Your task to perform on an android device: all mails in gmail Image 0: 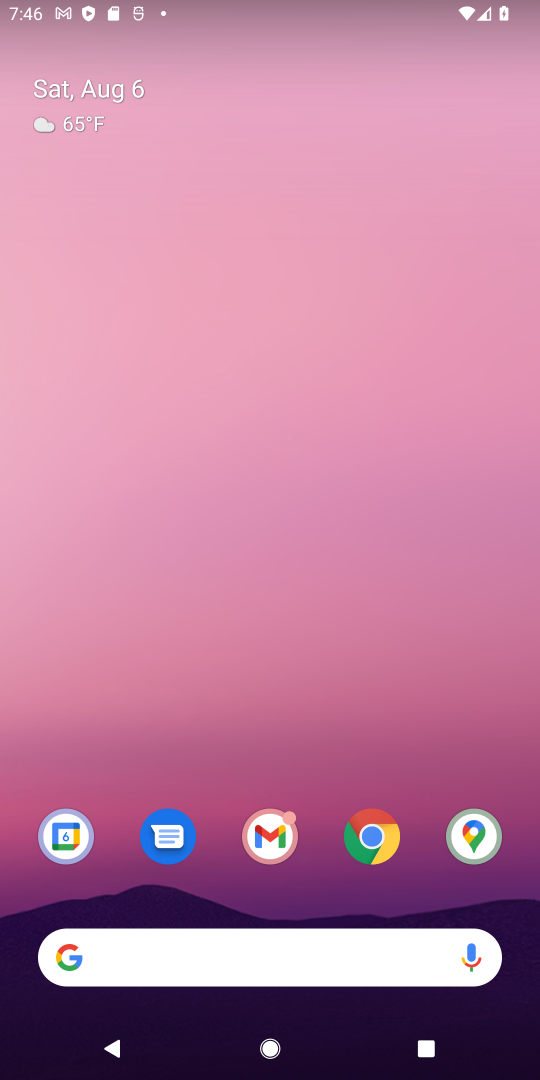
Step 0: drag from (399, 884) to (264, 173)
Your task to perform on an android device: all mails in gmail Image 1: 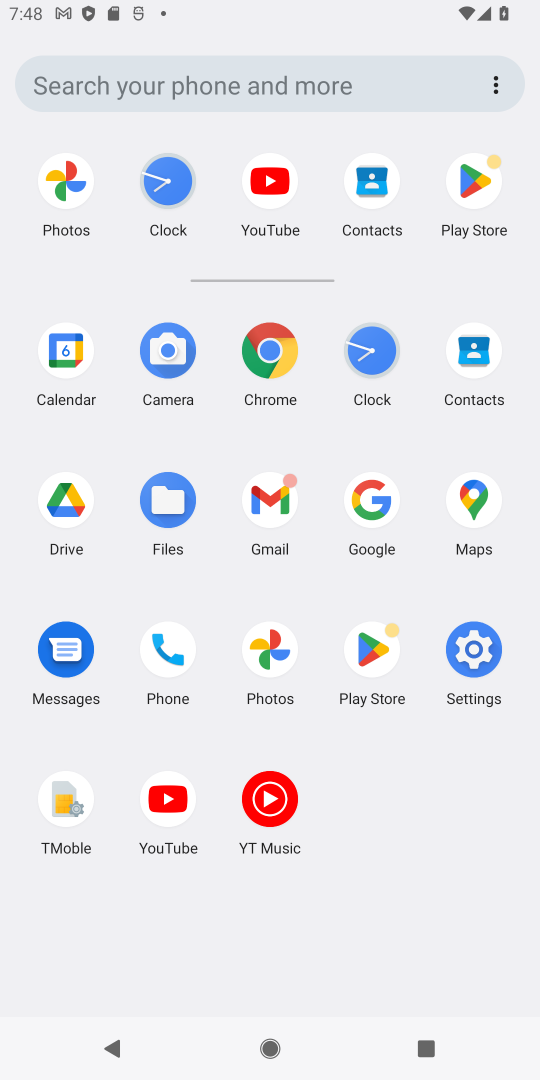
Step 1: click (275, 500)
Your task to perform on an android device: all mails in gmail Image 2: 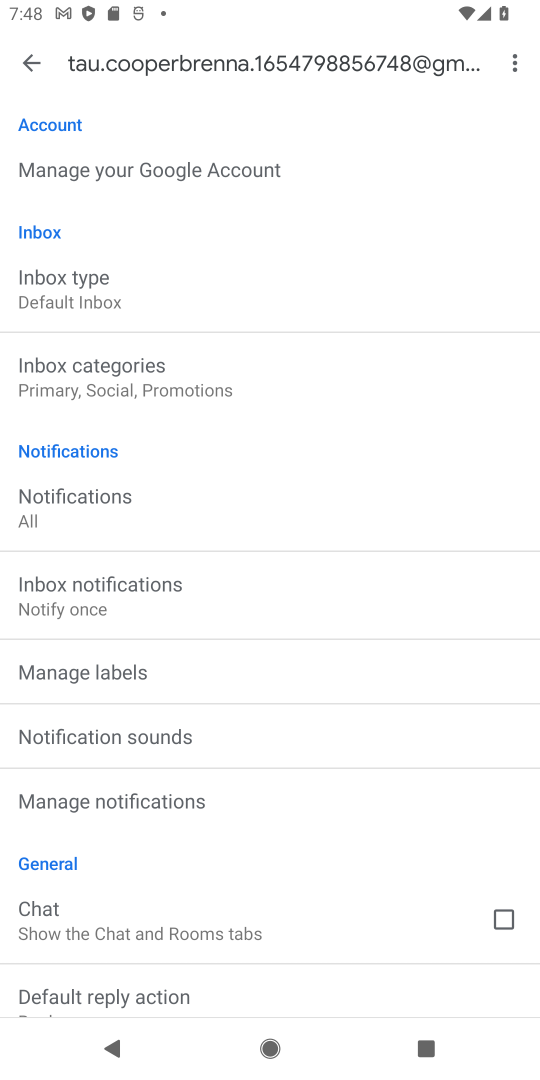
Step 2: press back button
Your task to perform on an android device: all mails in gmail Image 3: 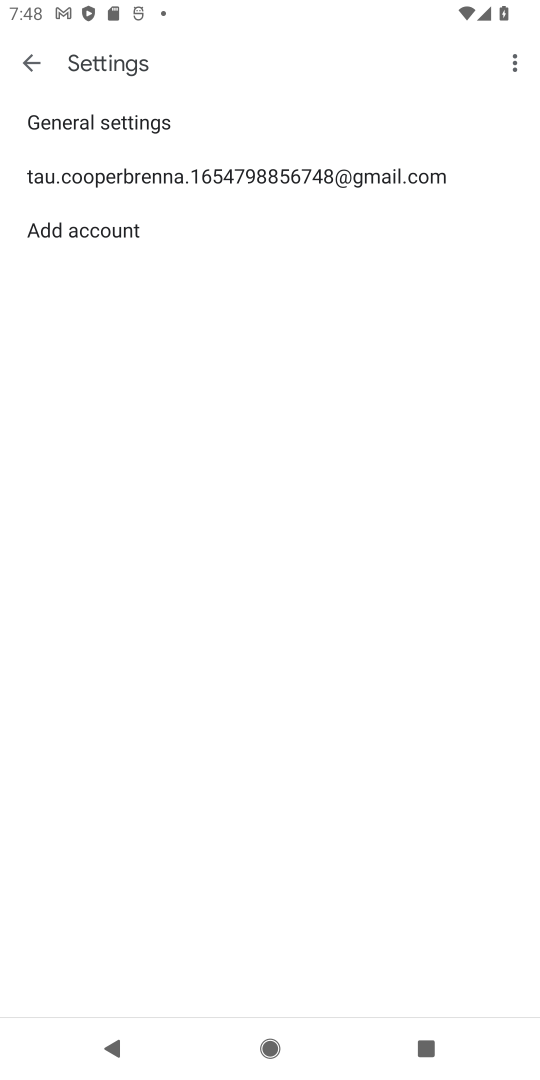
Step 3: press back button
Your task to perform on an android device: all mails in gmail Image 4: 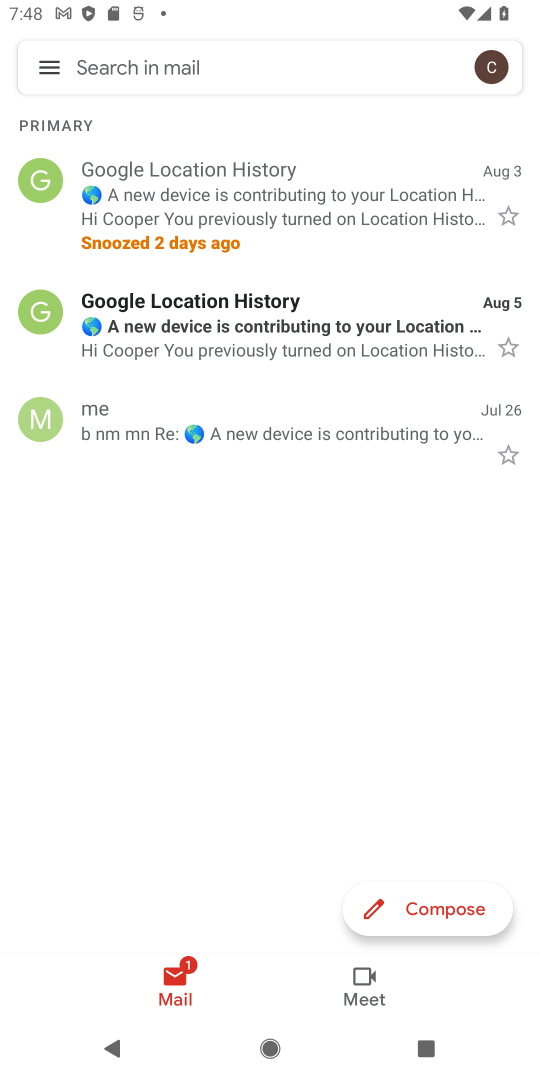
Step 4: click (51, 65)
Your task to perform on an android device: all mails in gmail Image 5: 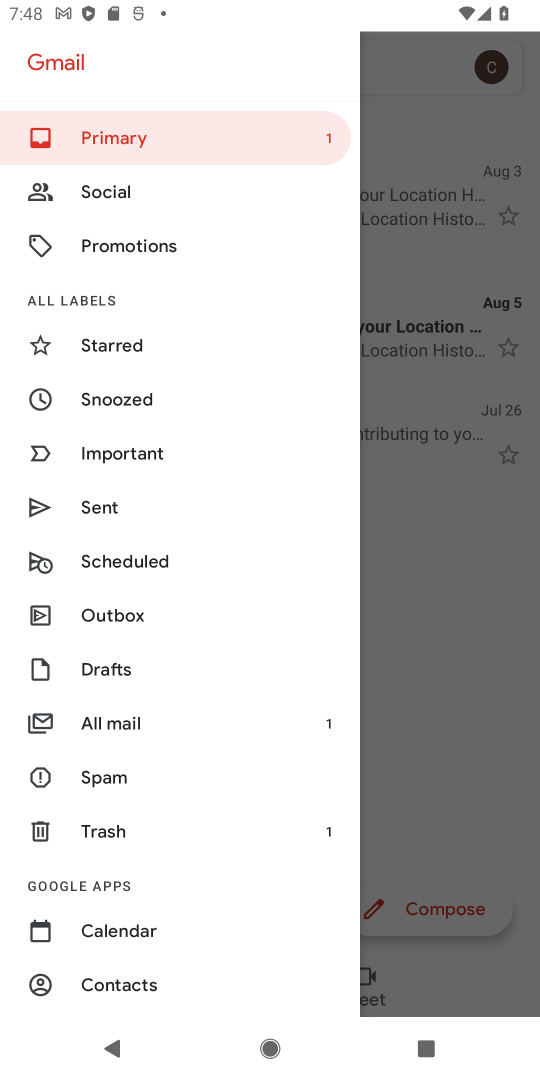
Step 5: click (122, 720)
Your task to perform on an android device: all mails in gmail Image 6: 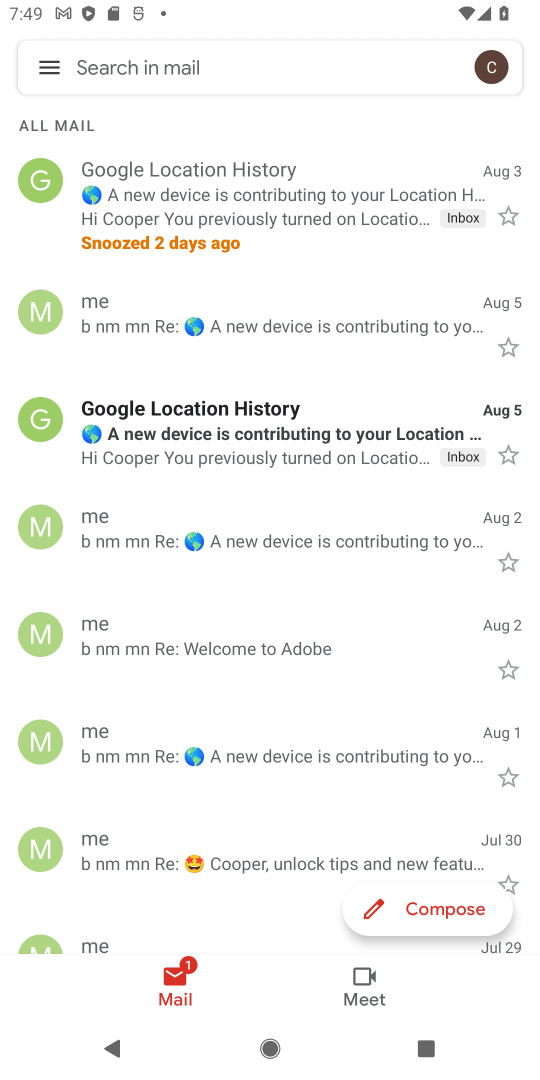
Step 6: task complete